Your task to perform on an android device: Go to accessibility settings Image 0: 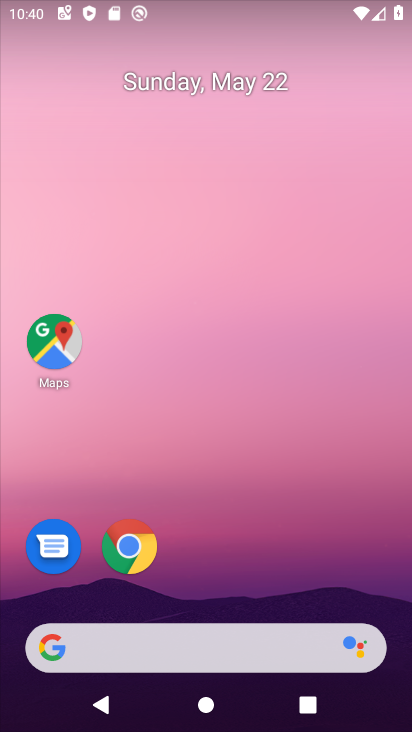
Step 0: drag from (232, 597) to (281, 85)
Your task to perform on an android device: Go to accessibility settings Image 1: 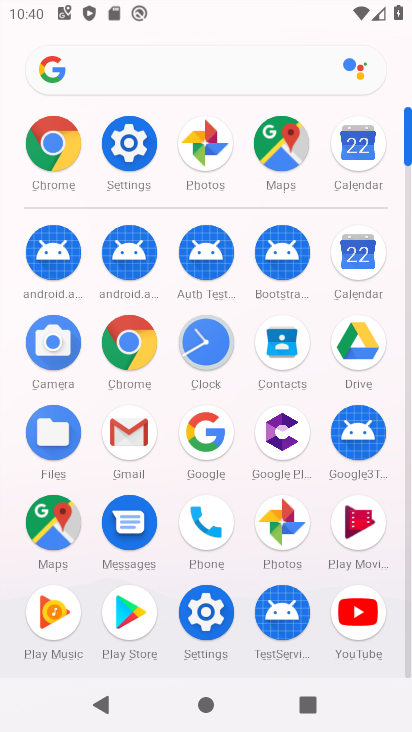
Step 1: click (126, 134)
Your task to perform on an android device: Go to accessibility settings Image 2: 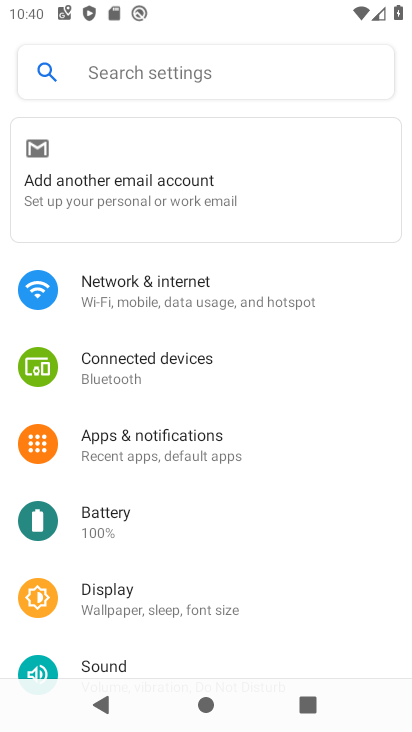
Step 2: drag from (174, 542) to (218, 271)
Your task to perform on an android device: Go to accessibility settings Image 3: 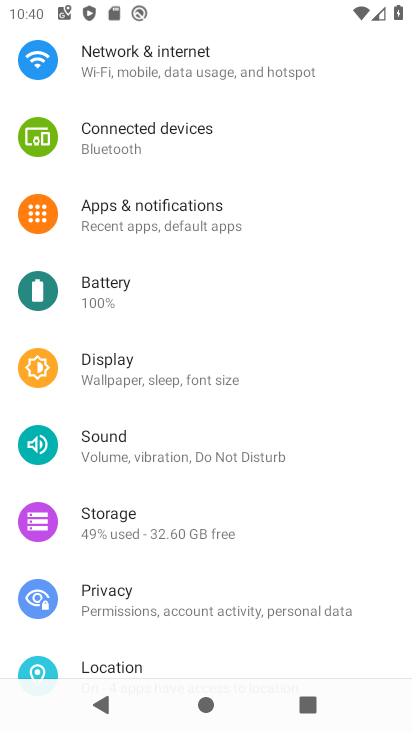
Step 3: drag from (140, 634) to (214, 86)
Your task to perform on an android device: Go to accessibility settings Image 4: 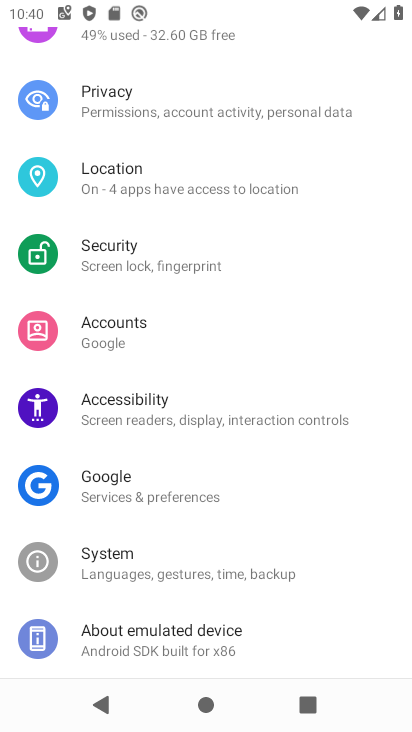
Step 4: click (174, 419)
Your task to perform on an android device: Go to accessibility settings Image 5: 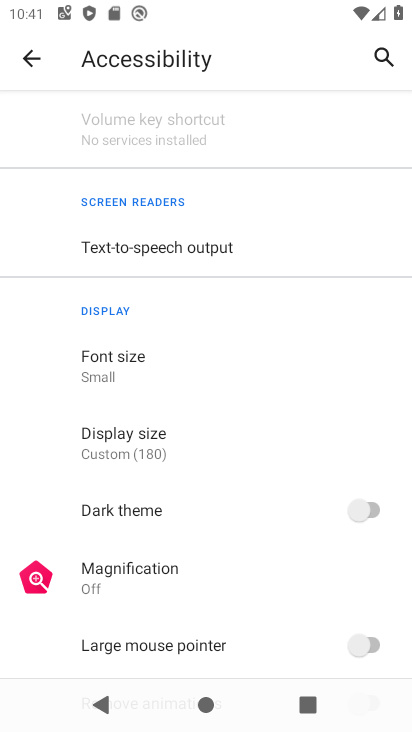
Step 5: task complete